Your task to perform on an android device: Check the news Image 0: 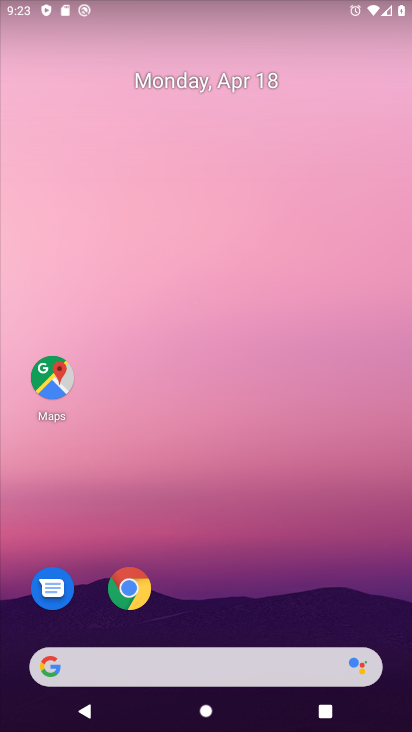
Step 0: drag from (264, 390) to (257, 238)
Your task to perform on an android device: Check the news Image 1: 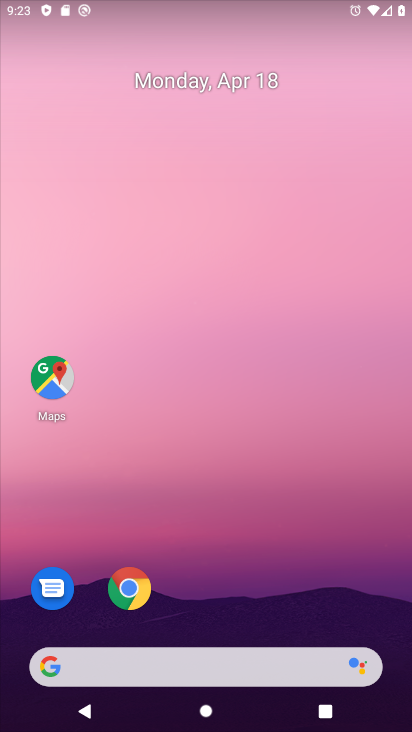
Step 1: drag from (192, 587) to (268, 148)
Your task to perform on an android device: Check the news Image 2: 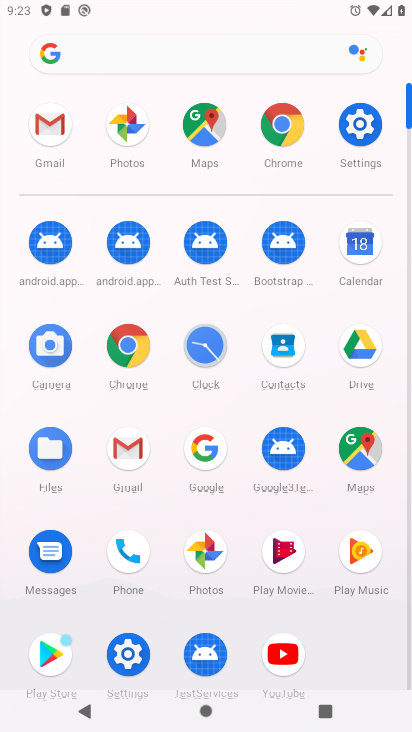
Step 2: click (125, 338)
Your task to perform on an android device: Check the news Image 3: 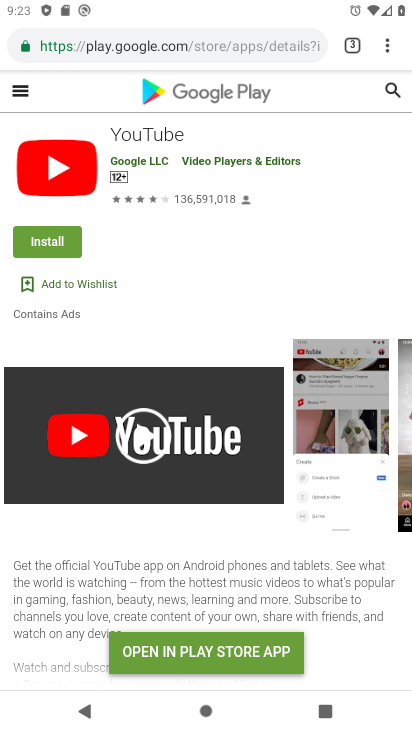
Step 3: click (383, 52)
Your task to perform on an android device: Check the news Image 4: 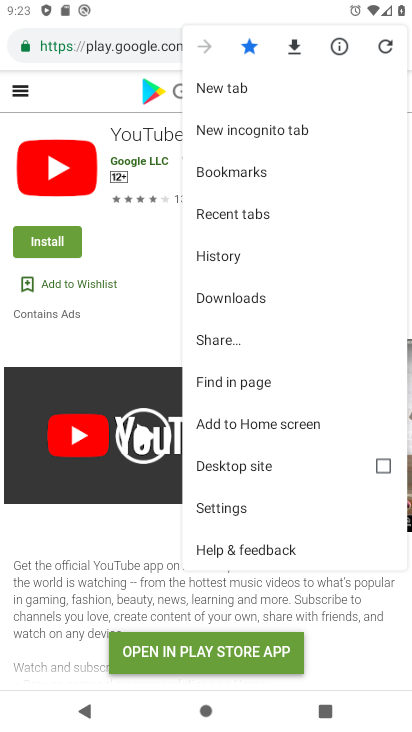
Step 4: click (273, 94)
Your task to perform on an android device: Check the news Image 5: 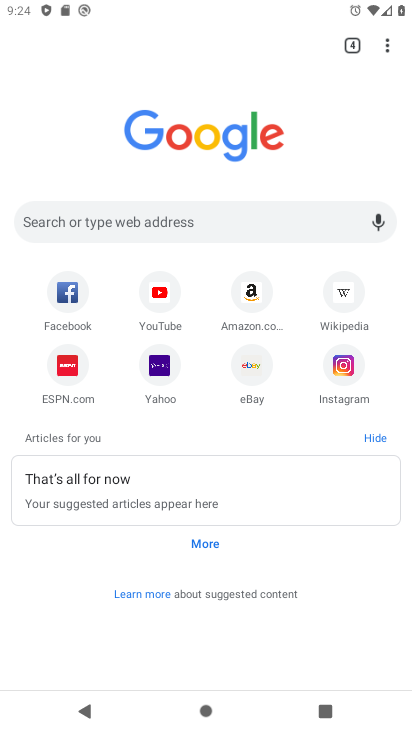
Step 5: click (262, 210)
Your task to perform on an android device: Check the news Image 6: 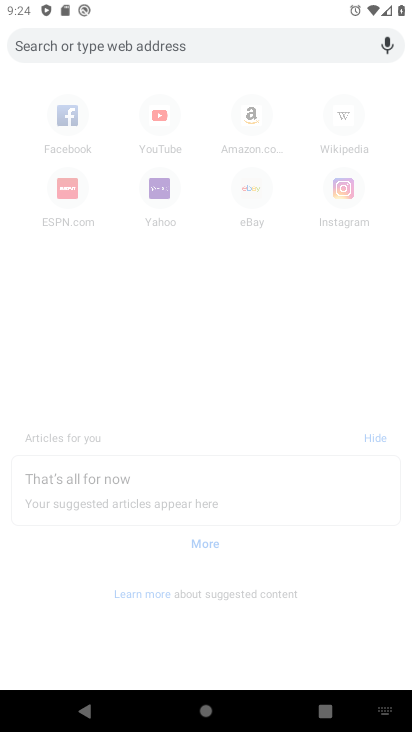
Step 6: type "news"
Your task to perform on an android device: Check the news Image 7: 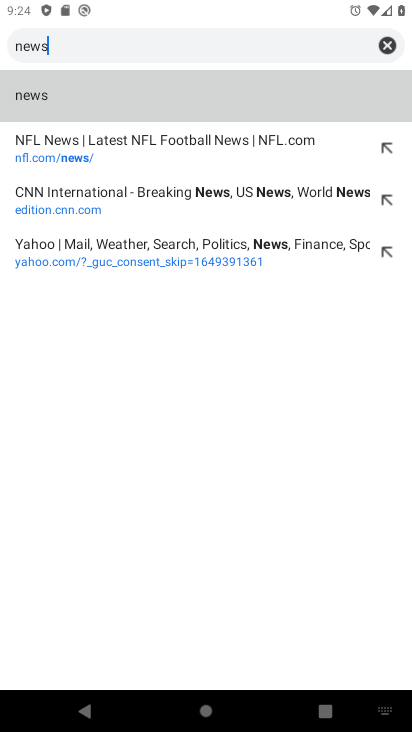
Step 7: click (114, 150)
Your task to perform on an android device: Check the news Image 8: 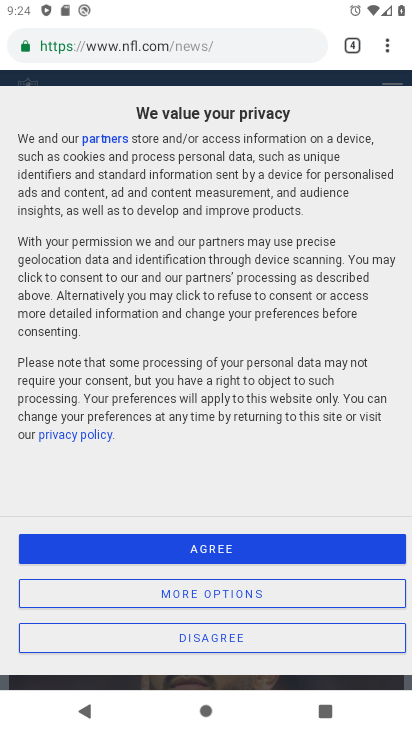
Step 8: click (235, 637)
Your task to perform on an android device: Check the news Image 9: 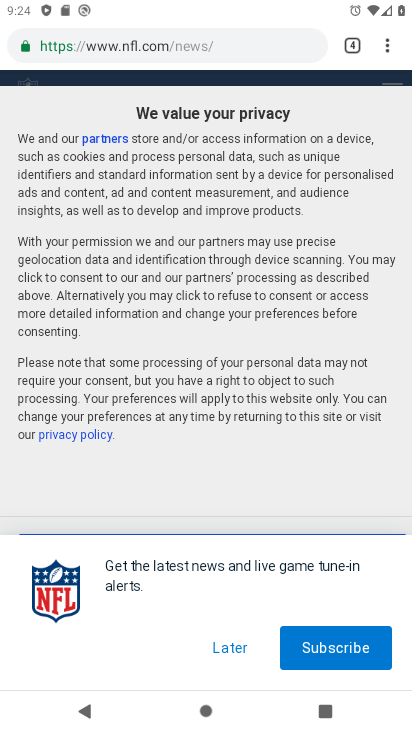
Step 9: click (231, 640)
Your task to perform on an android device: Check the news Image 10: 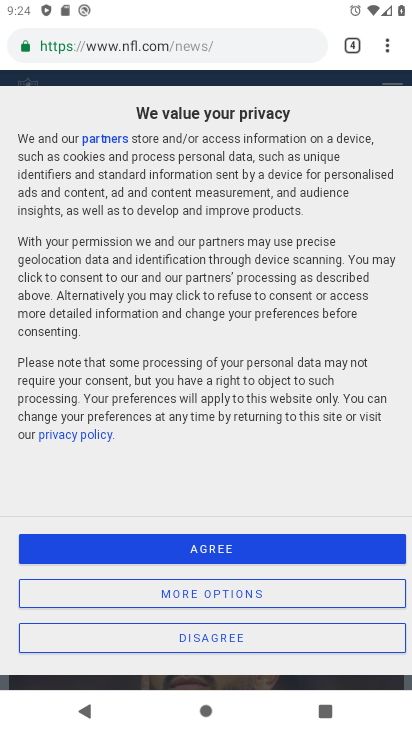
Step 10: drag from (250, 495) to (349, 16)
Your task to perform on an android device: Check the news Image 11: 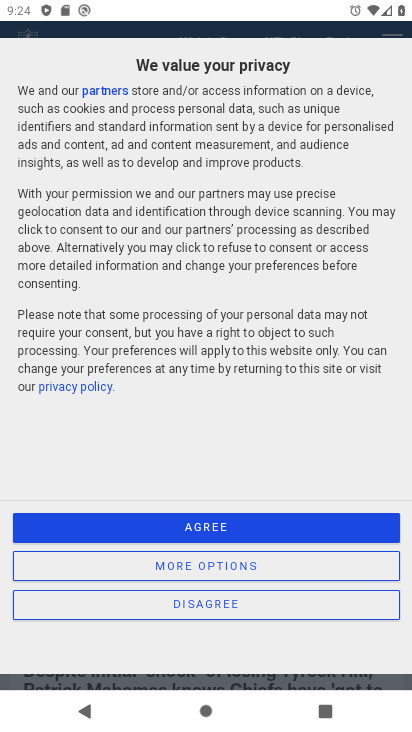
Step 11: click (218, 586)
Your task to perform on an android device: Check the news Image 12: 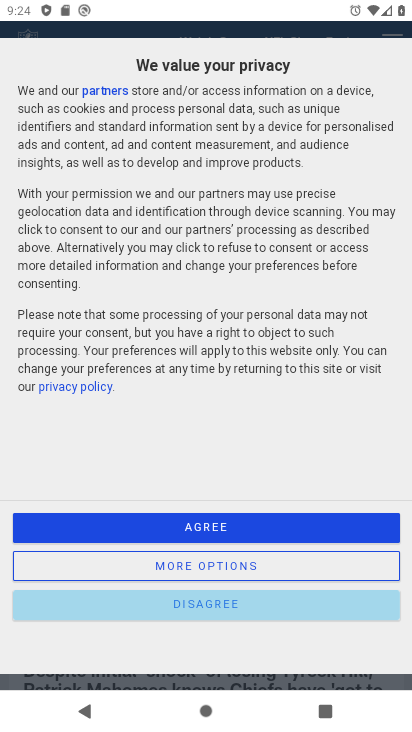
Step 12: click (216, 594)
Your task to perform on an android device: Check the news Image 13: 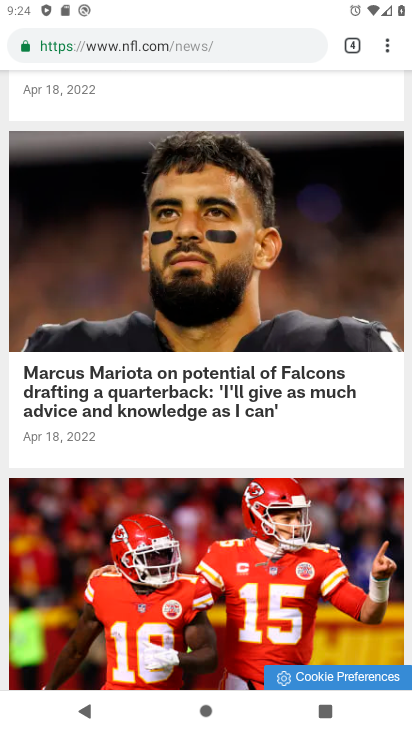
Step 13: task complete